Your task to perform on an android device: turn off wifi Image 0: 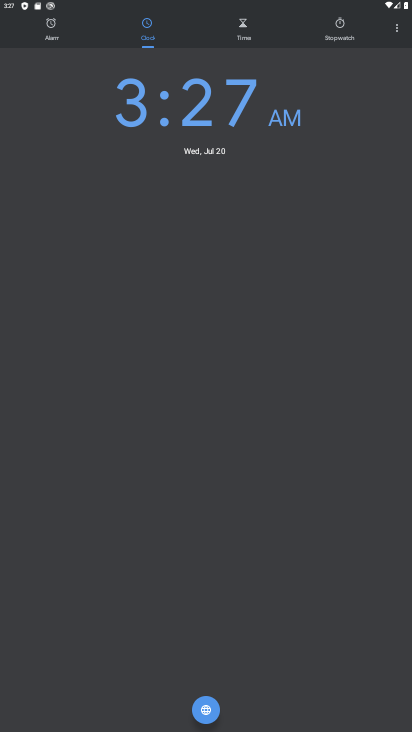
Step 0: drag from (280, 2) to (167, 395)
Your task to perform on an android device: turn off wifi Image 1: 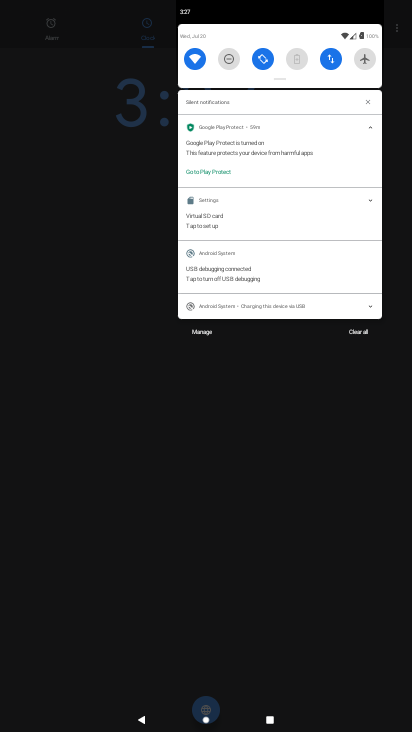
Step 1: click (363, 57)
Your task to perform on an android device: turn off wifi Image 2: 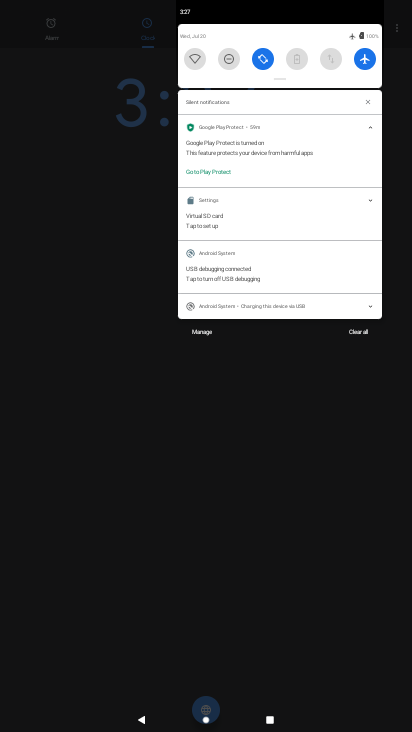
Step 2: click (363, 55)
Your task to perform on an android device: turn off wifi Image 3: 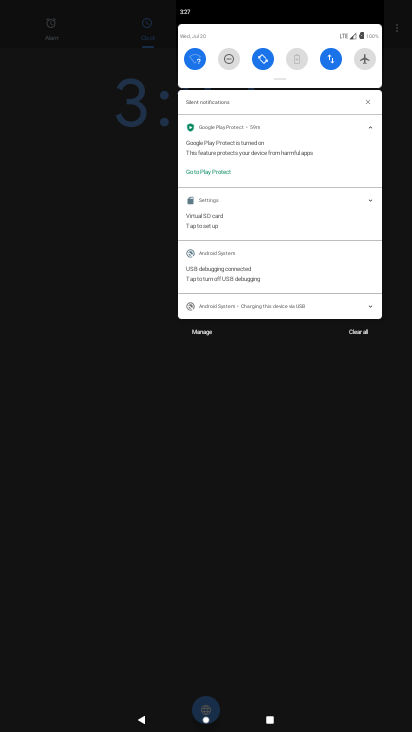
Step 3: click (197, 63)
Your task to perform on an android device: turn off wifi Image 4: 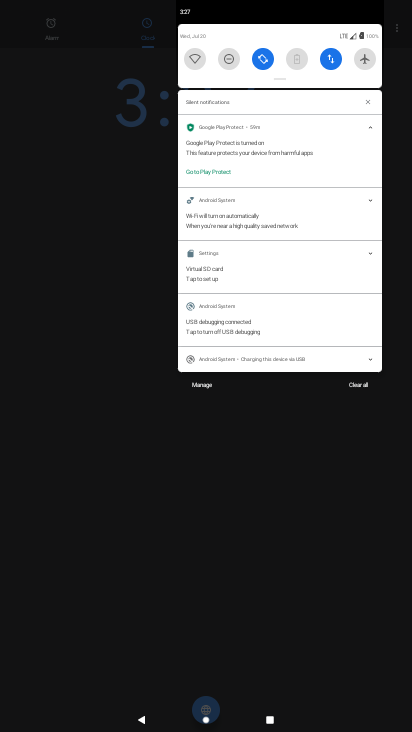
Step 4: task complete